Your task to perform on an android device: toggle notifications settings in the gmail app Image 0: 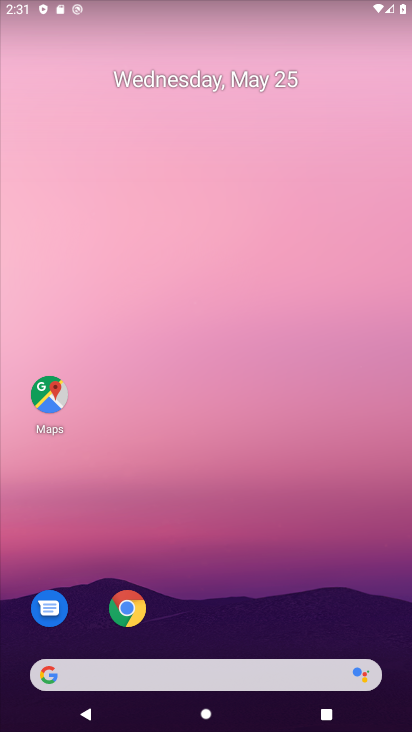
Step 0: drag from (372, 624) to (363, 56)
Your task to perform on an android device: toggle notifications settings in the gmail app Image 1: 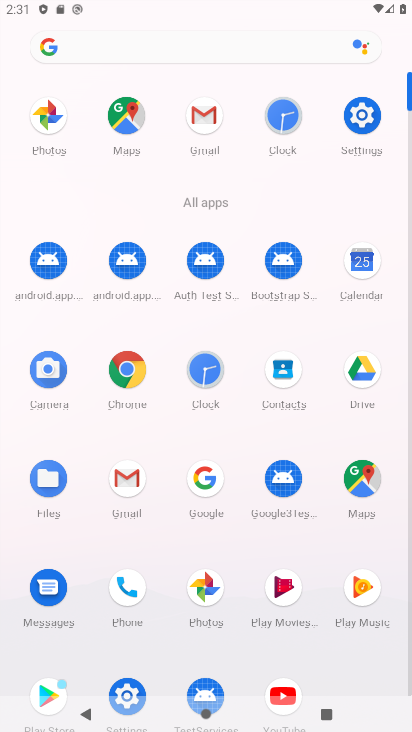
Step 1: click (202, 123)
Your task to perform on an android device: toggle notifications settings in the gmail app Image 2: 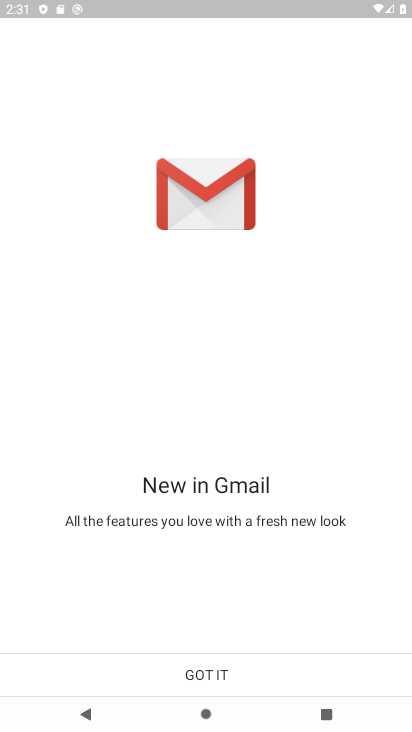
Step 2: click (216, 671)
Your task to perform on an android device: toggle notifications settings in the gmail app Image 3: 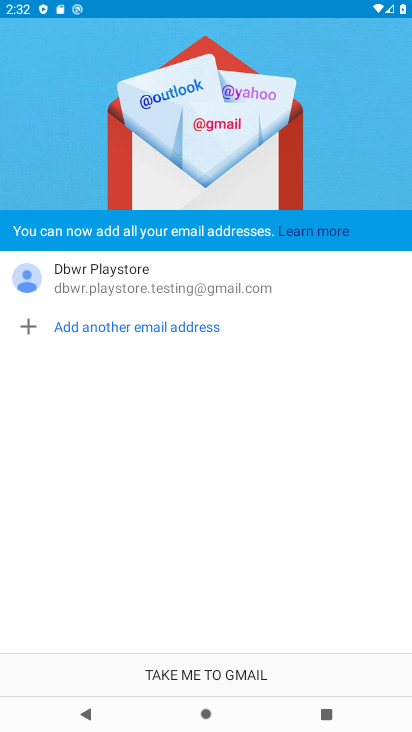
Step 3: click (216, 671)
Your task to perform on an android device: toggle notifications settings in the gmail app Image 4: 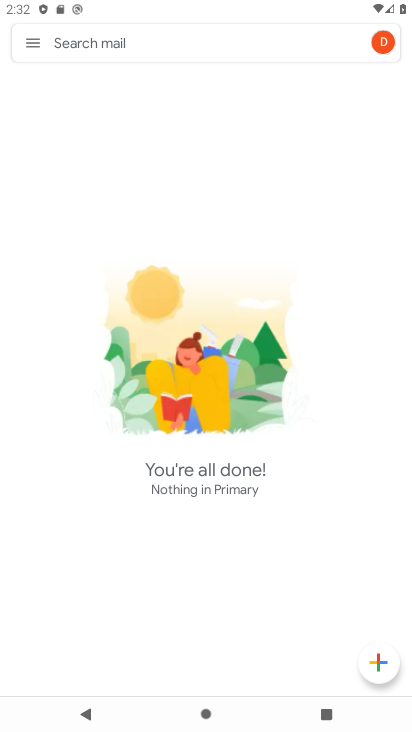
Step 4: click (29, 43)
Your task to perform on an android device: toggle notifications settings in the gmail app Image 5: 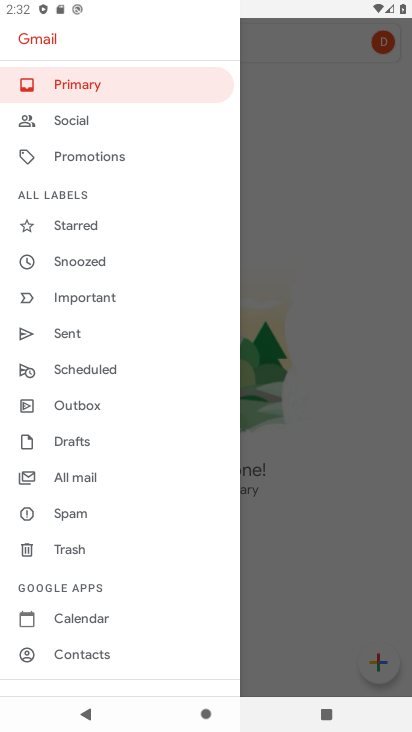
Step 5: drag from (148, 624) to (165, 353)
Your task to perform on an android device: toggle notifications settings in the gmail app Image 6: 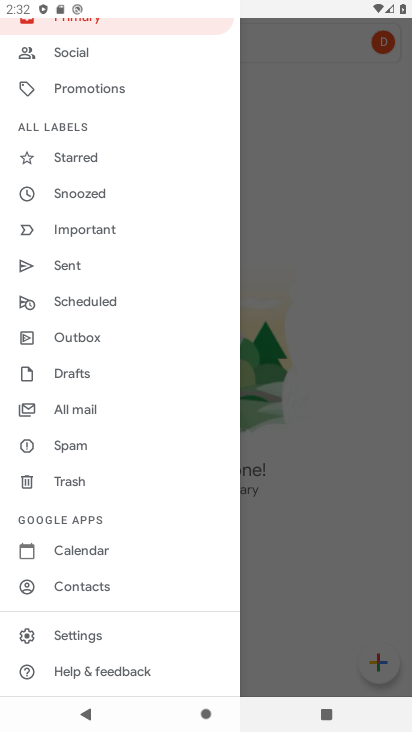
Step 6: click (66, 636)
Your task to perform on an android device: toggle notifications settings in the gmail app Image 7: 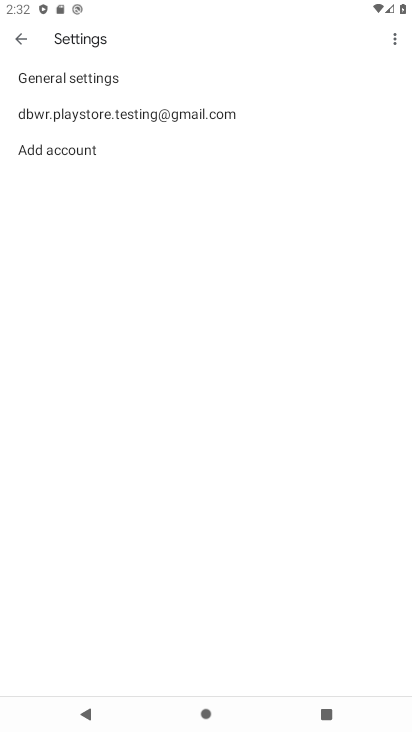
Step 7: click (42, 79)
Your task to perform on an android device: toggle notifications settings in the gmail app Image 8: 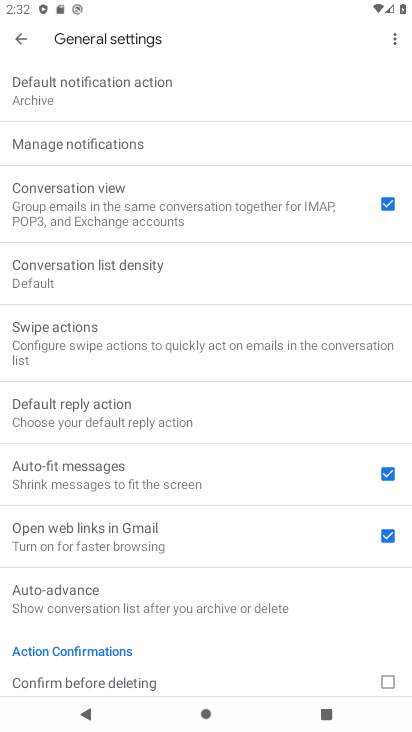
Step 8: click (38, 148)
Your task to perform on an android device: toggle notifications settings in the gmail app Image 9: 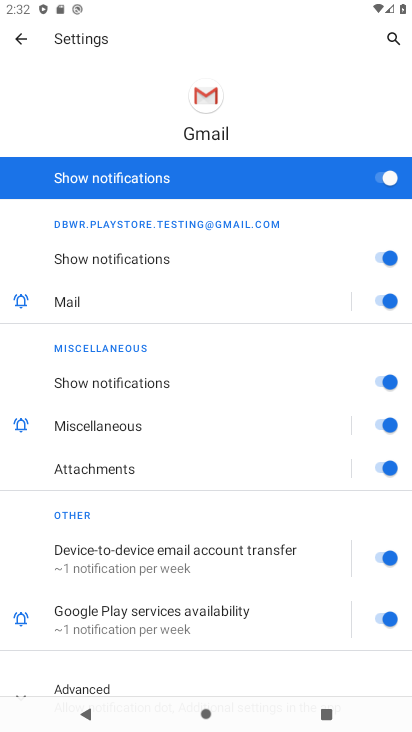
Step 9: click (388, 183)
Your task to perform on an android device: toggle notifications settings in the gmail app Image 10: 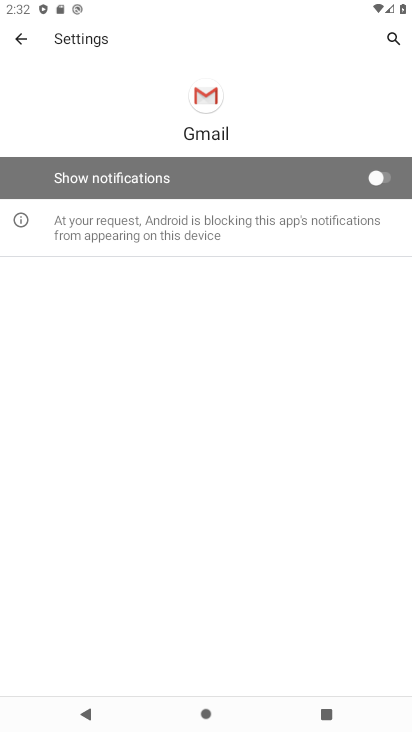
Step 10: task complete